Your task to perform on an android device: Search for seafood restaurants on Google Maps Image 0: 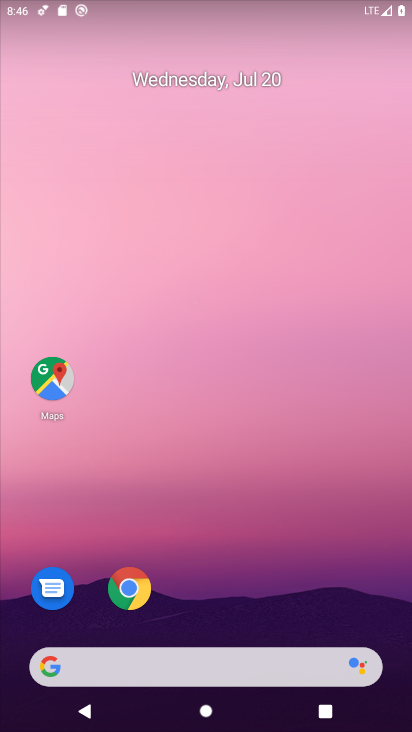
Step 0: press home button
Your task to perform on an android device: Search for seafood restaurants on Google Maps Image 1: 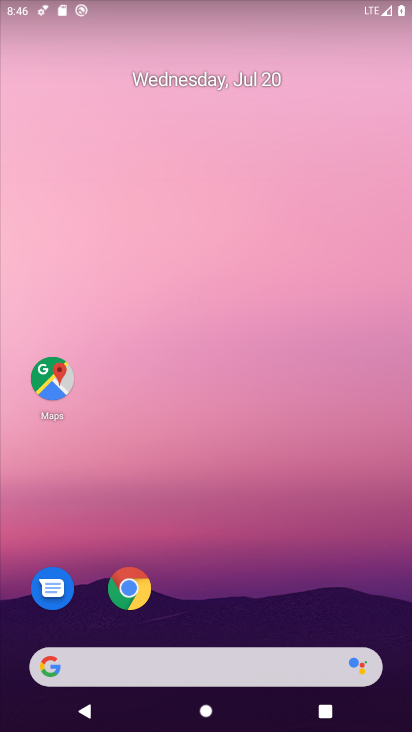
Step 1: click (54, 371)
Your task to perform on an android device: Search for seafood restaurants on Google Maps Image 2: 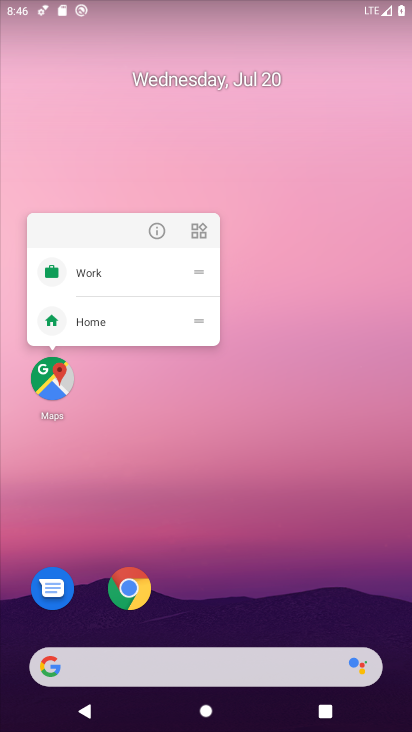
Step 2: click (48, 376)
Your task to perform on an android device: Search for seafood restaurants on Google Maps Image 3: 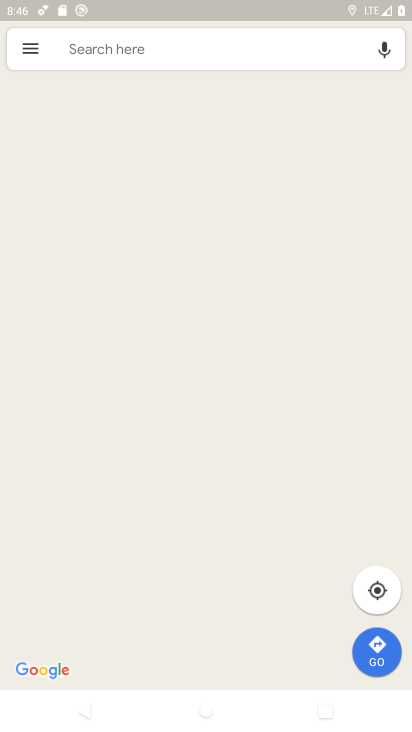
Step 3: click (113, 48)
Your task to perform on an android device: Search for seafood restaurants on Google Maps Image 4: 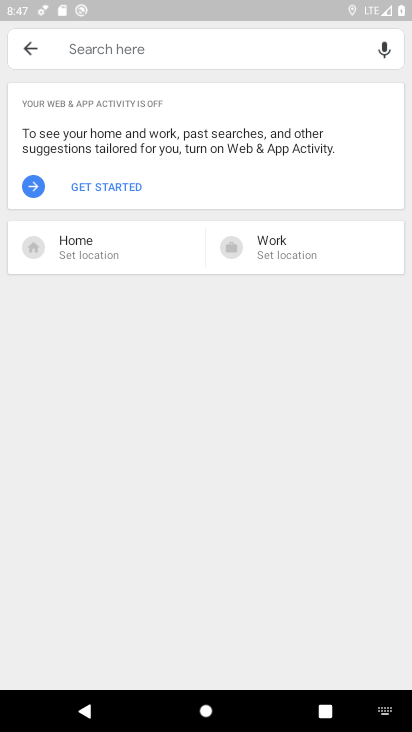
Step 4: type "seafood restaurant"
Your task to perform on an android device: Search for seafood restaurants on Google Maps Image 5: 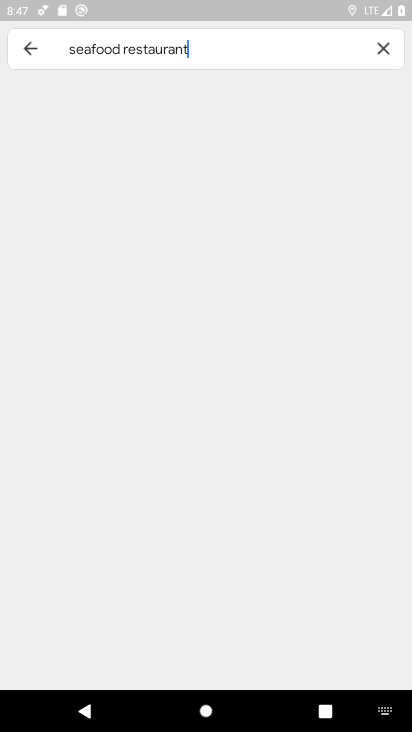
Step 5: task complete